Your task to perform on an android device: toggle show notifications on the lock screen Image 0: 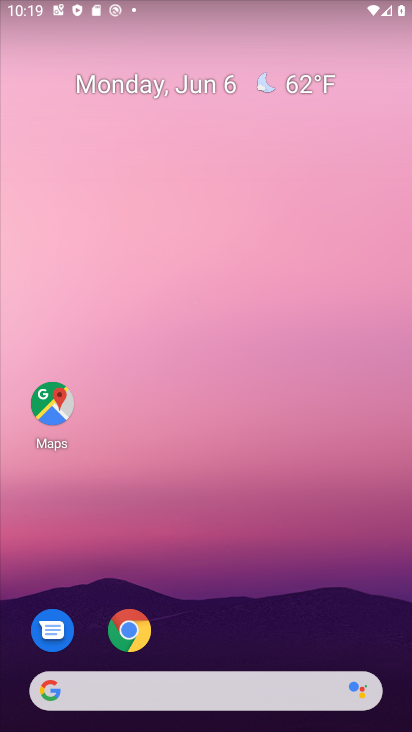
Step 0: drag from (358, 609) to (303, 161)
Your task to perform on an android device: toggle show notifications on the lock screen Image 1: 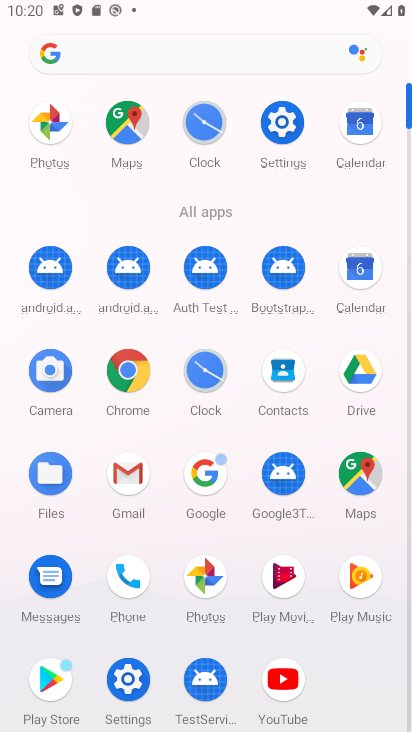
Step 1: click (129, 691)
Your task to perform on an android device: toggle show notifications on the lock screen Image 2: 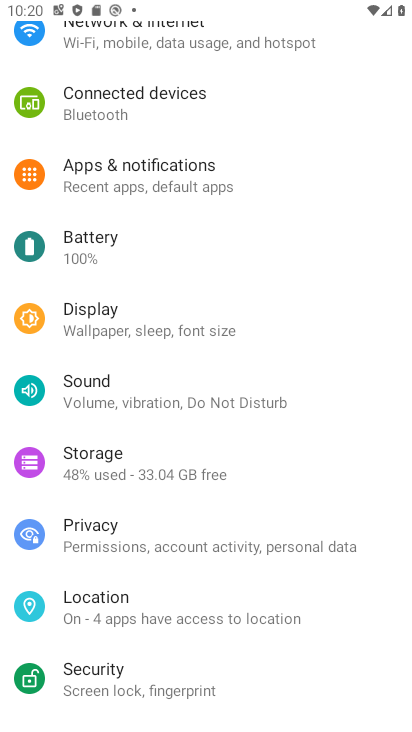
Step 2: click (152, 609)
Your task to perform on an android device: toggle show notifications on the lock screen Image 3: 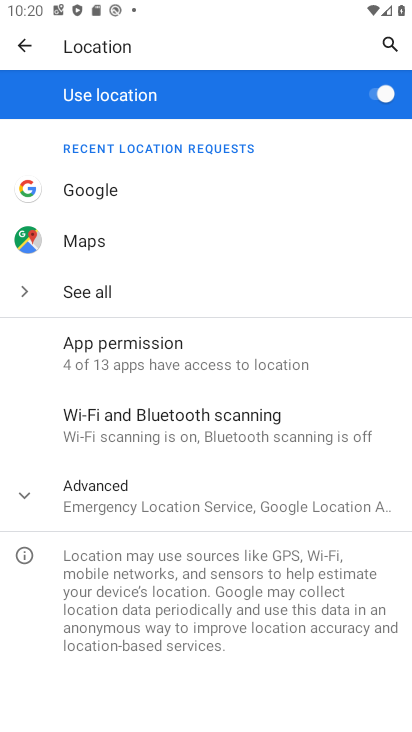
Step 3: click (123, 504)
Your task to perform on an android device: toggle show notifications on the lock screen Image 4: 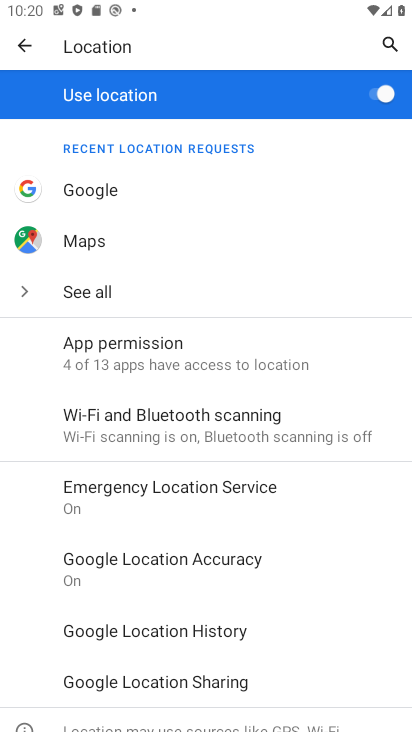
Step 4: task complete